Your task to perform on an android device: open app "Speedtest by Ookla" (install if not already installed) and enter user name: "hyena@outlook.com" and password: "terminators" Image 0: 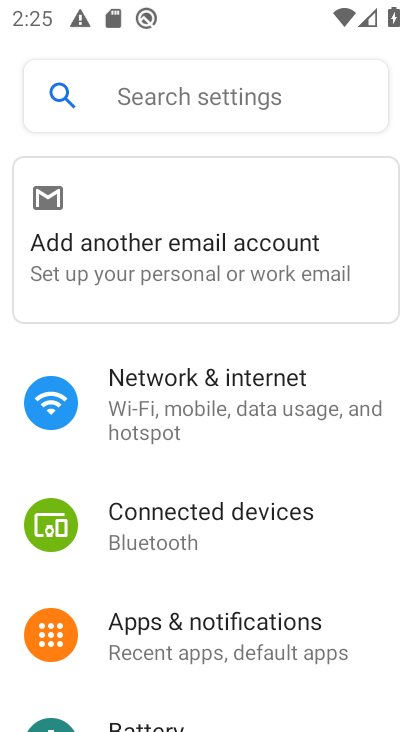
Step 0: press home button
Your task to perform on an android device: open app "Speedtest by Ookla" (install if not already installed) and enter user name: "hyena@outlook.com" and password: "terminators" Image 1: 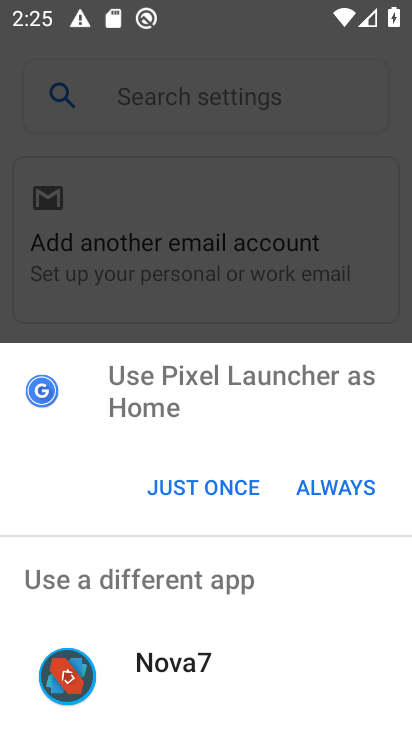
Step 1: click (207, 488)
Your task to perform on an android device: open app "Speedtest by Ookla" (install if not already installed) and enter user name: "hyena@outlook.com" and password: "terminators" Image 2: 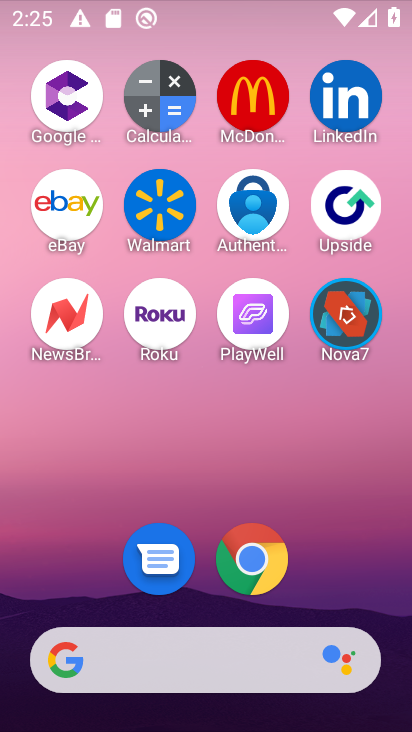
Step 2: drag from (190, 650) to (242, 48)
Your task to perform on an android device: open app "Speedtest by Ookla" (install if not already installed) and enter user name: "hyena@outlook.com" and password: "terminators" Image 3: 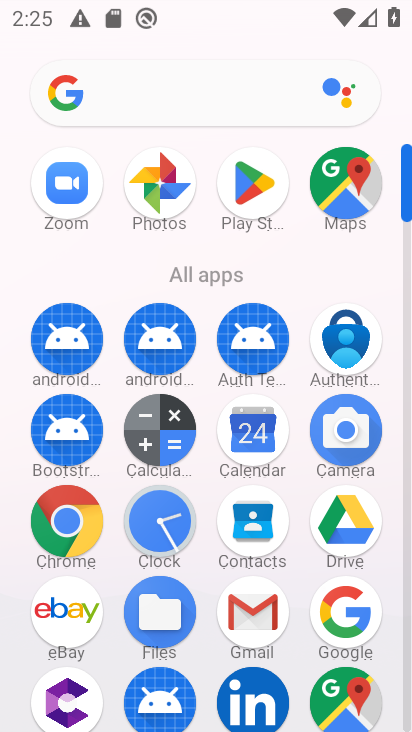
Step 3: click (235, 190)
Your task to perform on an android device: open app "Speedtest by Ookla" (install if not already installed) and enter user name: "hyena@outlook.com" and password: "terminators" Image 4: 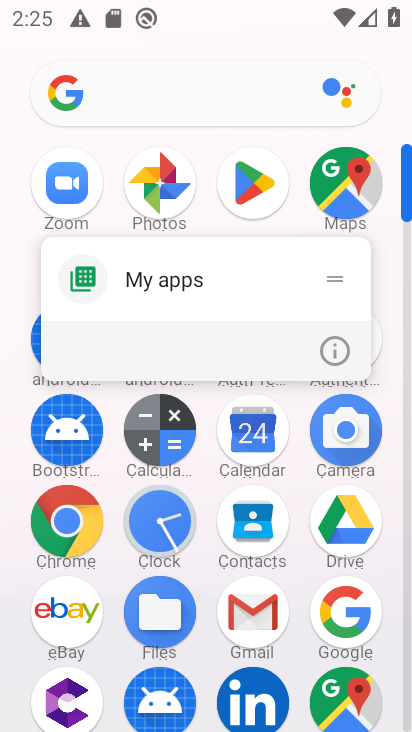
Step 4: click (238, 198)
Your task to perform on an android device: open app "Speedtest by Ookla" (install if not already installed) and enter user name: "hyena@outlook.com" and password: "terminators" Image 5: 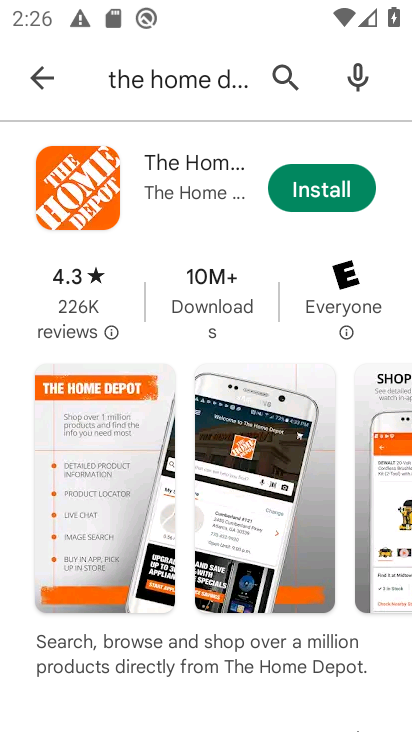
Step 5: click (287, 80)
Your task to perform on an android device: open app "Speedtest by Ookla" (install if not already installed) and enter user name: "hyena@outlook.com" and password: "terminators" Image 6: 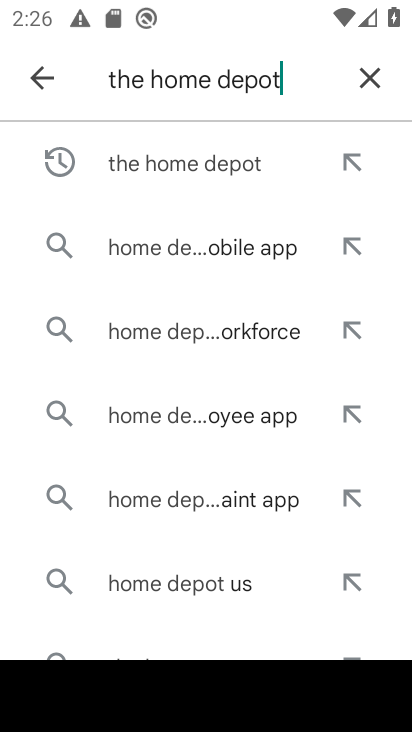
Step 6: click (372, 83)
Your task to perform on an android device: open app "Speedtest by Ookla" (install if not already installed) and enter user name: "hyena@outlook.com" and password: "terminators" Image 7: 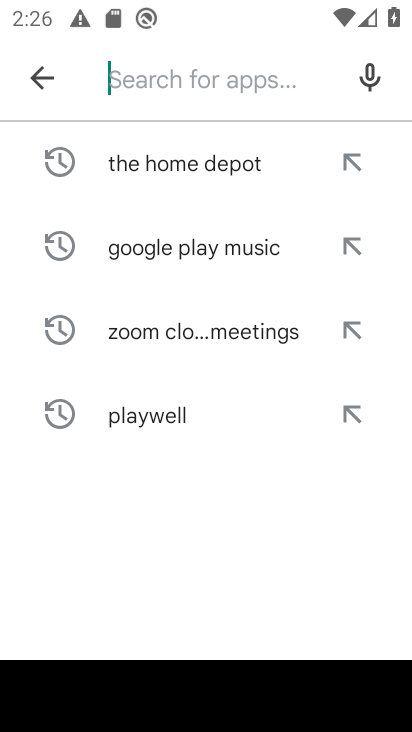
Step 7: type "Speedtest by Ookla"
Your task to perform on an android device: open app "Speedtest by Ookla" (install if not already installed) and enter user name: "hyena@outlook.com" and password: "terminators" Image 8: 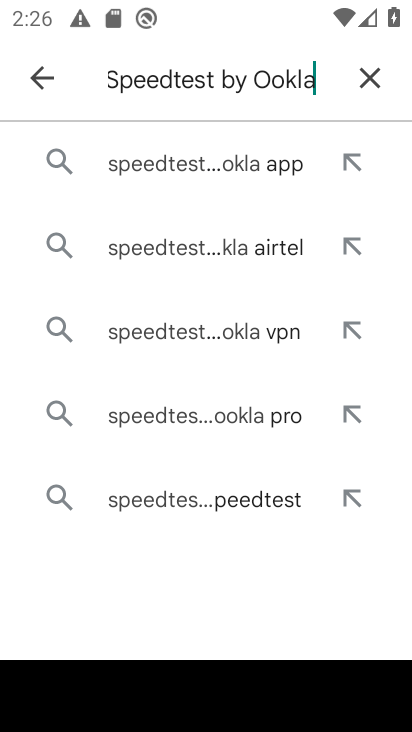
Step 8: click (164, 167)
Your task to perform on an android device: open app "Speedtest by Ookla" (install if not already installed) and enter user name: "hyena@outlook.com" and password: "terminators" Image 9: 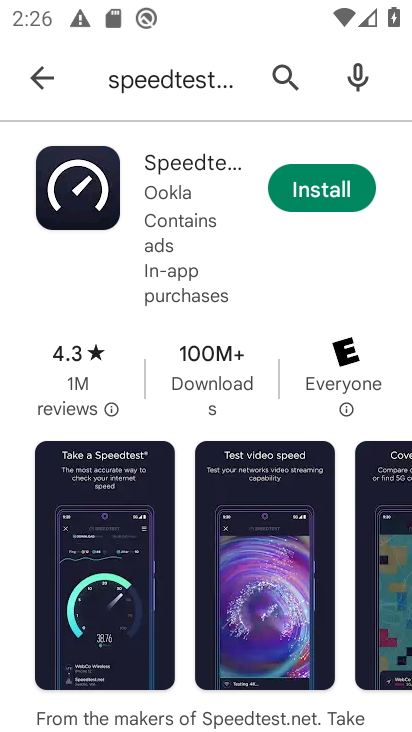
Step 9: click (309, 193)
Your task to perform on an android device: open app "Speedtest by Ookla" (install if not already installed) and enter user name: "hyena@outlook.com" and password: "terminators" Image 10: 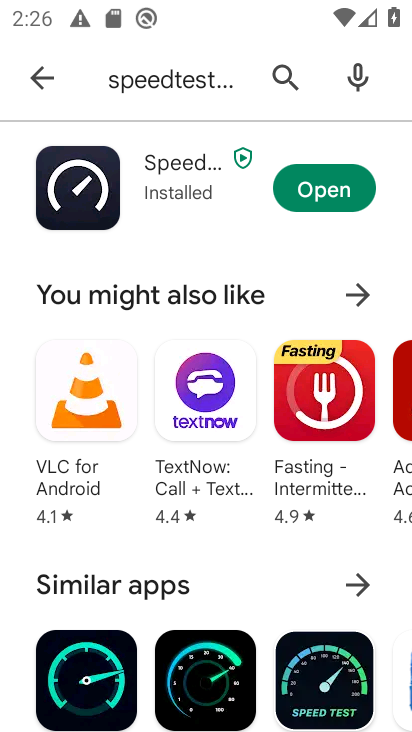
Step 10: click (320, 193)
Your task to perform on an android device: open app "Speedtest by Ookla" (install if not already installed) and enter user name: "hyena@outlook.com" and password: "terminators" Image 11: 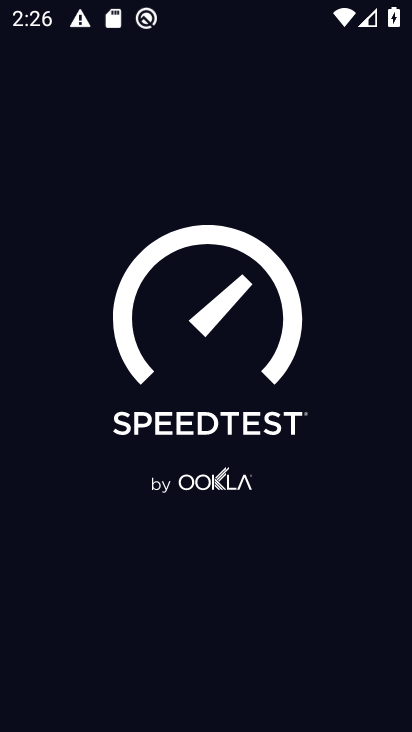
Step 11: task complete